Your task to perform on an android device: Search for vegetarian restaurants on Maps Image 0: 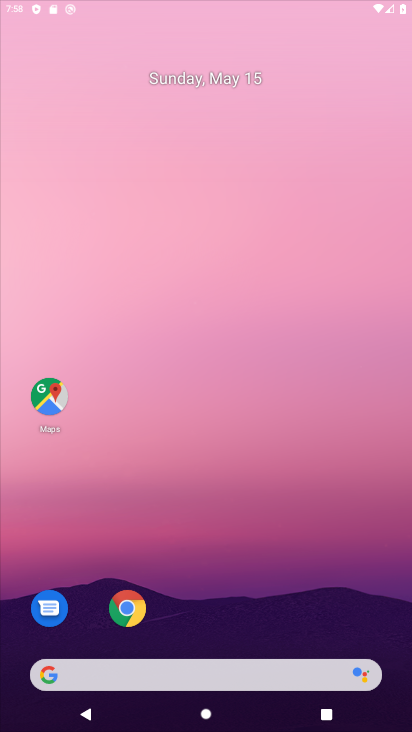
Step 0: click (201, 335)
Your task to perform on an android device: Search for vegetarian restaurants on Maps Image 1: 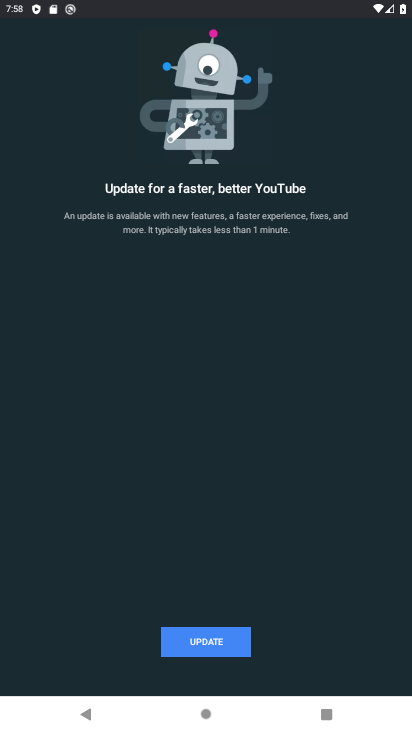
Step 1: press back button
Your task to perform on an android device: Search for vegetarian restaurants on Maps Image 2: 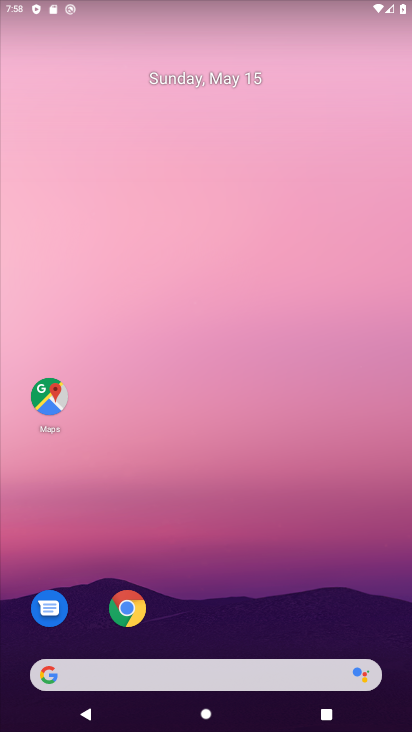
Step 2: drag from (261, 699) to (195, 150)
Your task to perform on an android device: Search for vegetarian restaurants on Maps Image 3: 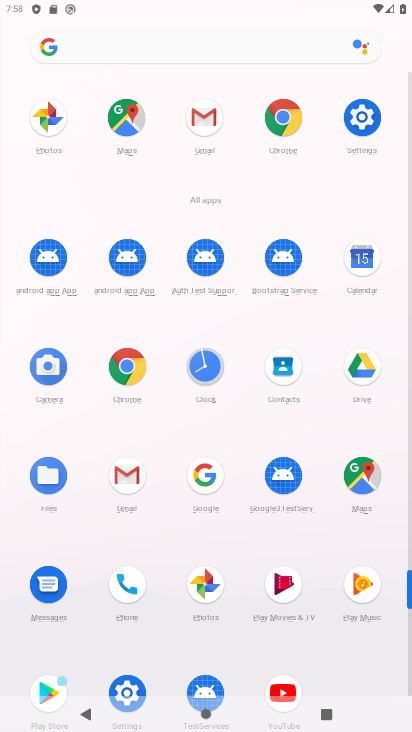
Step 3: click (120, 118)
Your task to perform on an android device: Search for vegetarian restaurants on Maps Image 4: 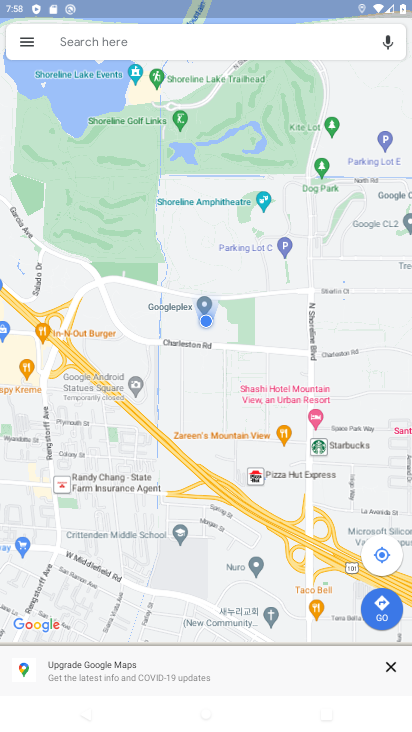
Step 4: click (49, 40)
Your task to perform on an android device: Search for vegetarian restaurants on Maps Image 5: 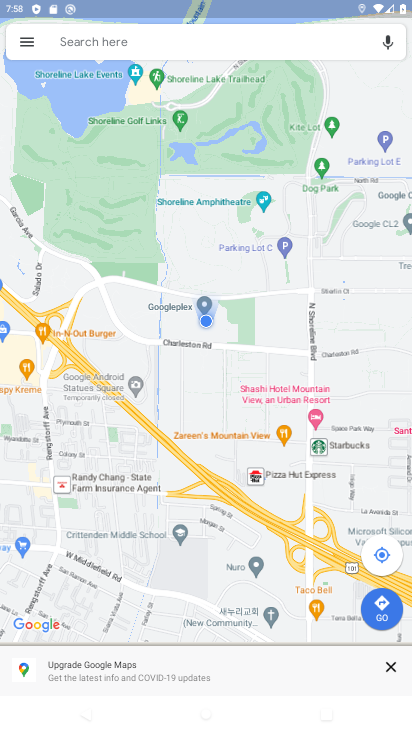
Step 5: click (98, 27)
Your task to perform on an android device: Search for vegetarian restaurants on Maps Image 6: 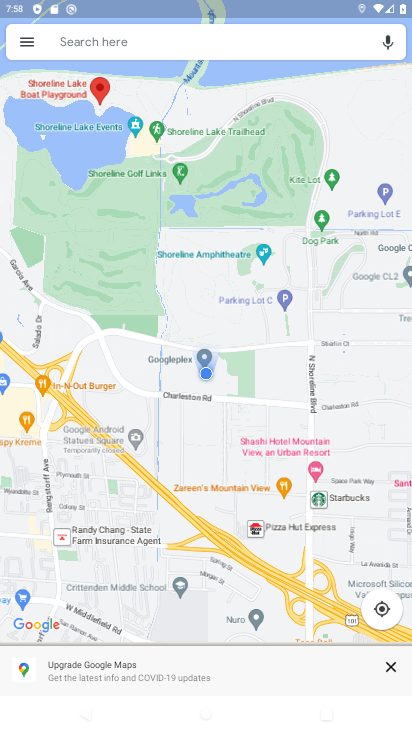
Step 6: click (87, 32)
Your task to perform on an android device: Search for vegetarian restaurants on Maps Image 7: 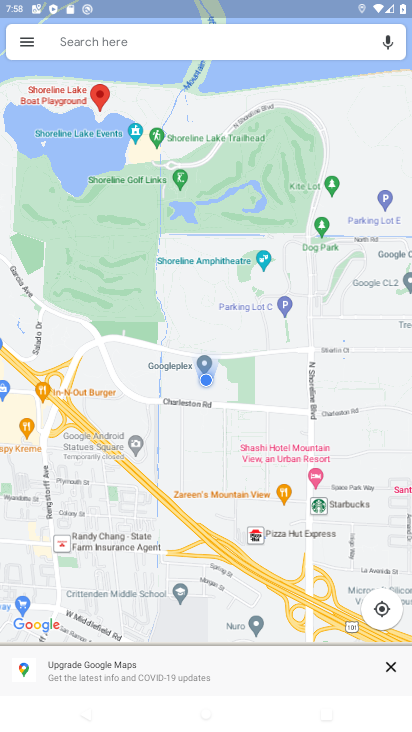
Step 7: click (76, 43)
Your task to perform on an android device: Search for vegetarian restaurants on Maps Image 8: 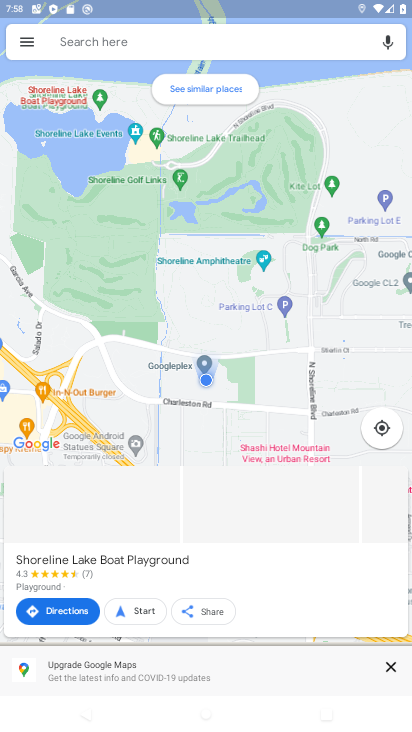
Step 8: click (76, 43)
Your task to perform on an android device: Search for vegetarian restaurants on Maps Image 9: 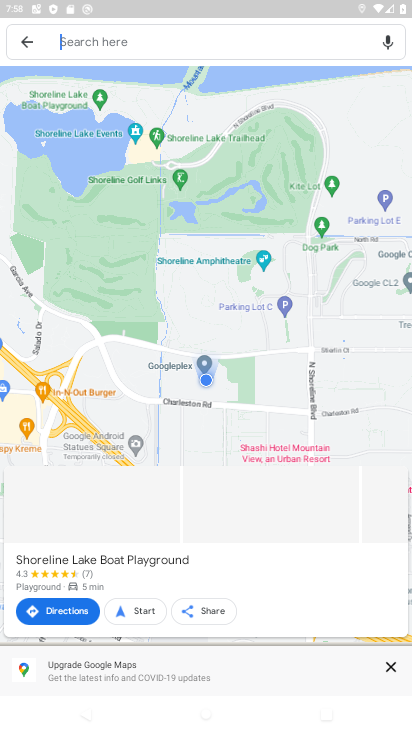
Step 9: click (76, 43)
Your task to perform on an android device: Search for vegetarian restaurants on Maps Image 10: 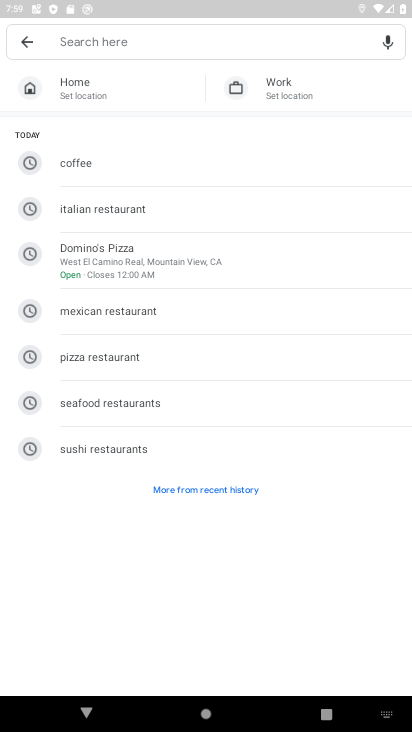
Step 10: type "vegetarian restaurants"
Your task to perform on an android device: Search for vegetarian restaurants on Maps Image 11: 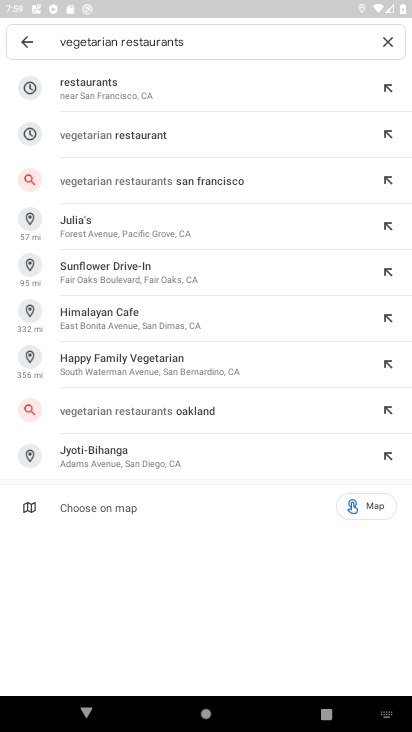
Step 11: click (148, 139)
Your task to perform on an android device: Search for vegetarian restaurants on Maps Image 12: 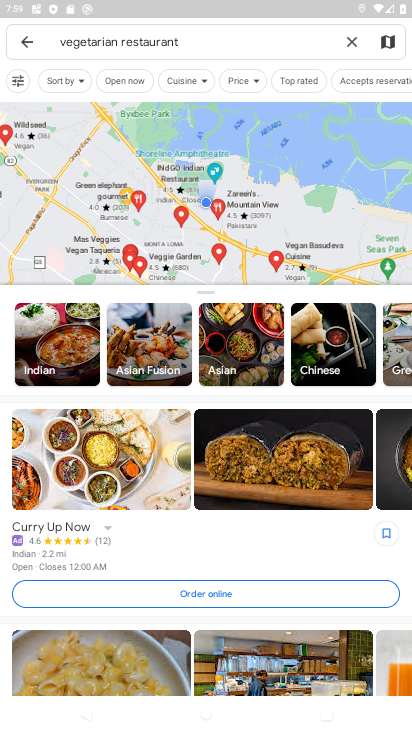
Step 12: task complete